Your task to perform on an android device: Go to sound settings Image 0: 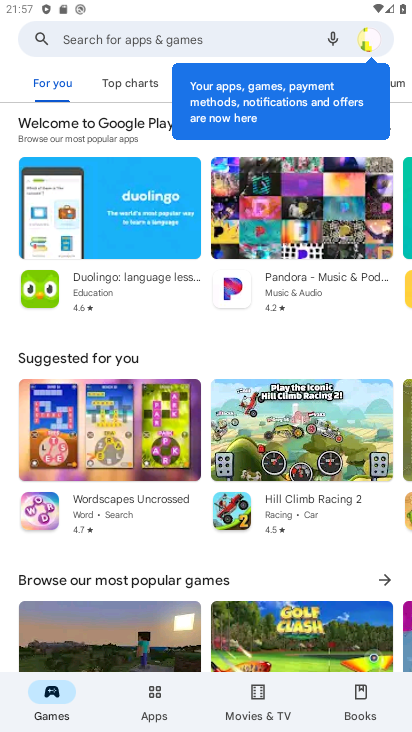
Step 0: press home button
Your task to perform on an android device: Go to sound settings Image 1: 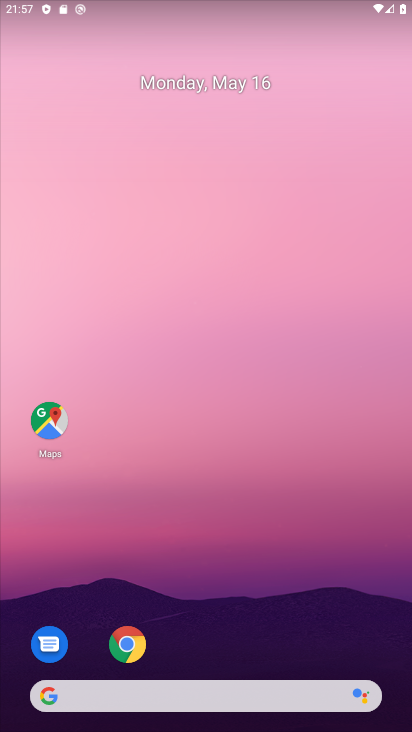
Step 1: drag from (63, 554) to (281, 121)
Your task to perform on an android device: Go to sound settings Image 2: 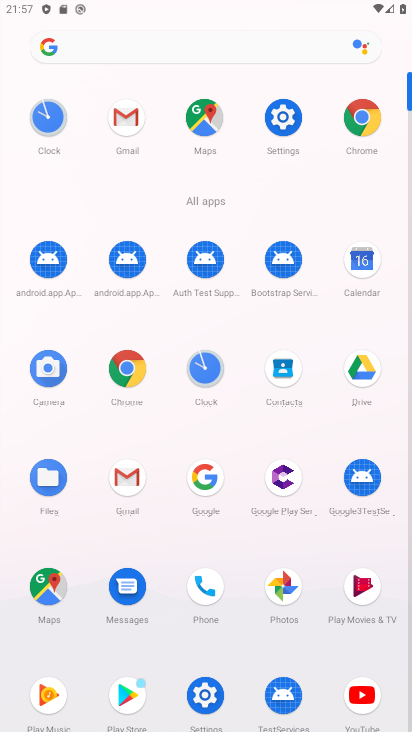
Step 2: click (301, 117)
Your task to perform on an android device: Go to sound settings Image 3: 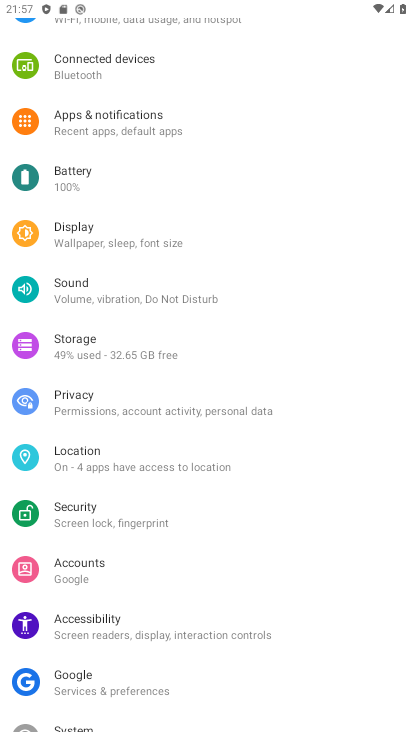
Step 3: click (59, 283)
Your task to perform on an android device: Go to sound settings Image 4: 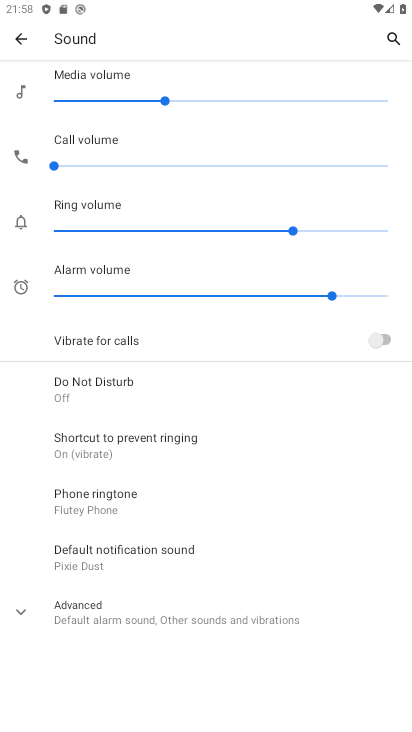
Step 4: task complete